Your task to perform on an android device: turn on sleep mode Image 0: 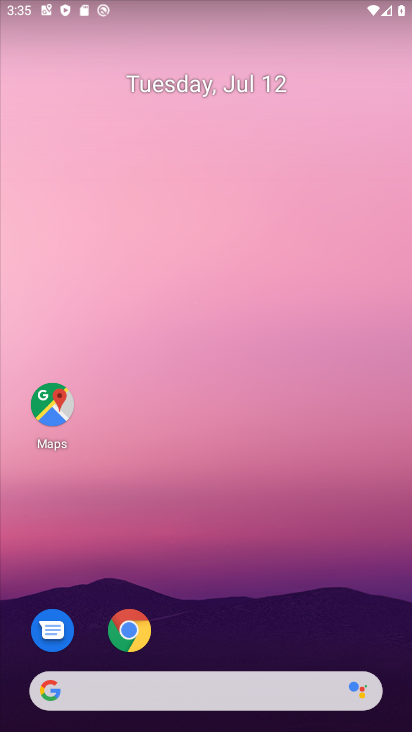
Step 0: drag from (212, 589) to (202, 62)
Your task to perform on an android device: turn on sleep mode Image 1: 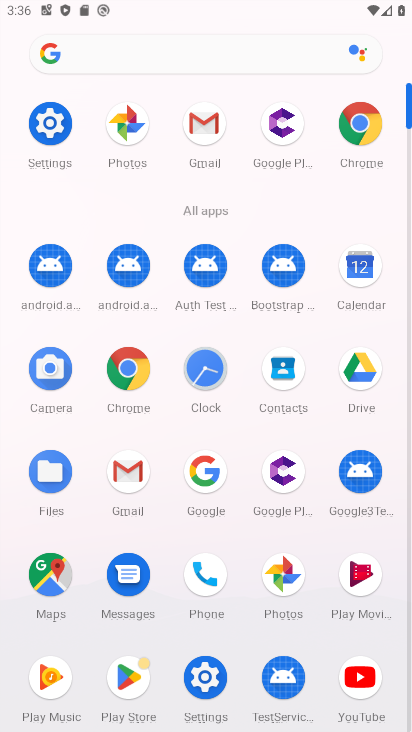
Step 1: click (206, 693)
Your task to perform on an android device: turn on sleep mode Image 2: 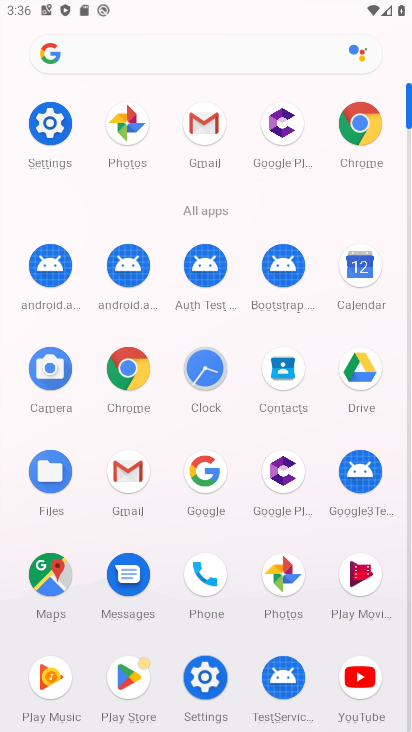
Step 2: click (213, 688)
Your task to perform on an android device: turn on sleep mode Image 3: 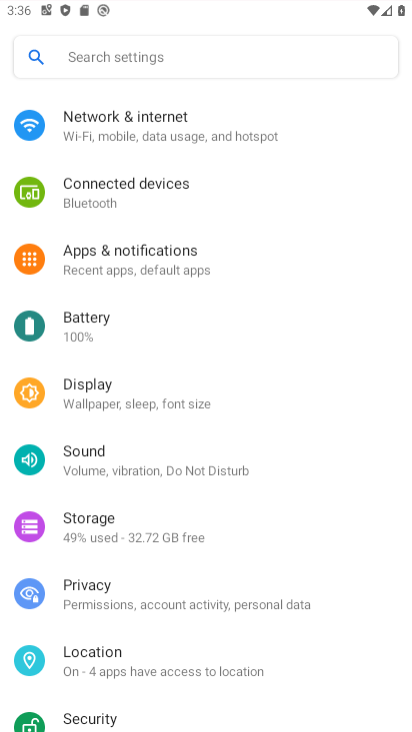
Step 3: click (214, 695)
Your task to perform on an android device: turn on sleep mode Image 4: 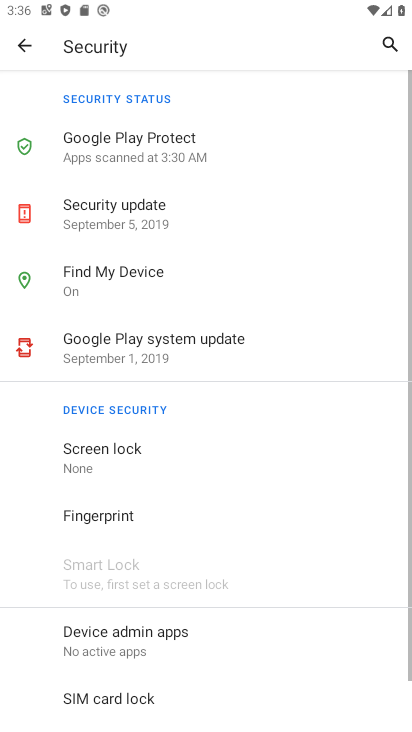
Step 4: click (23, 34)
Your task to perform on an android device: turn on sleep mode Image 5: 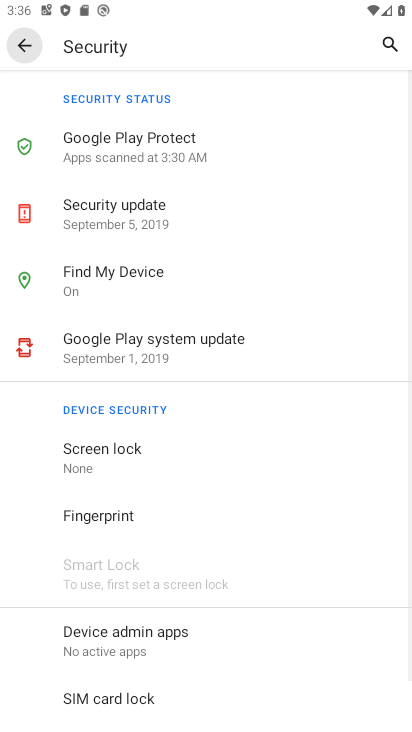
Step 5: click (22, 38)
Your task to perform on an android device: turn on sleep mode Image 6: 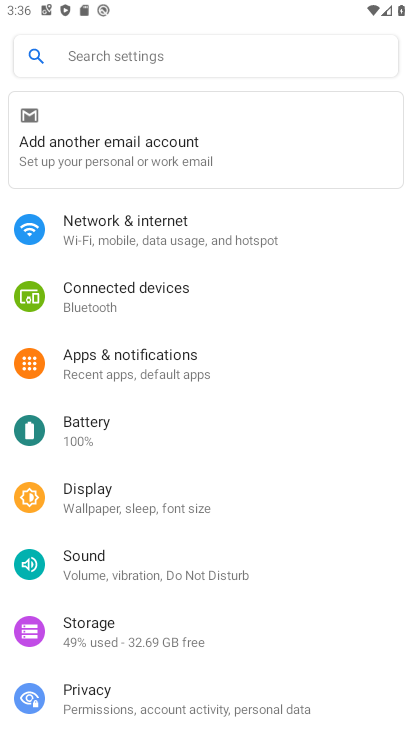
Step 6: click (91, 478)
Your task to perform on an android device: turn on sleep mode Image 7: 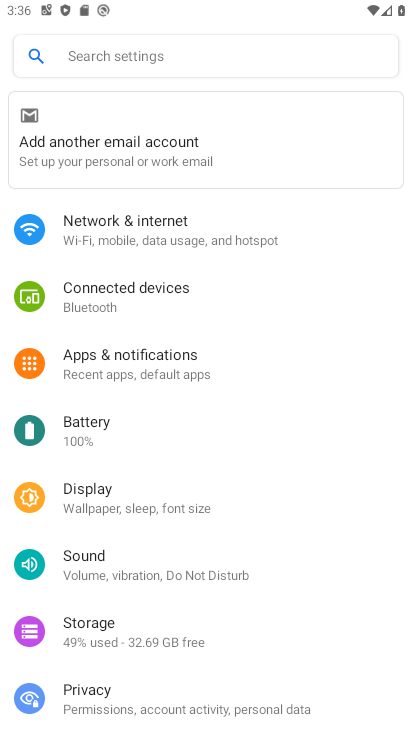
Step 7: click (90, 485)
Your task to perform on an android device: turn on sleep mode Image 8: 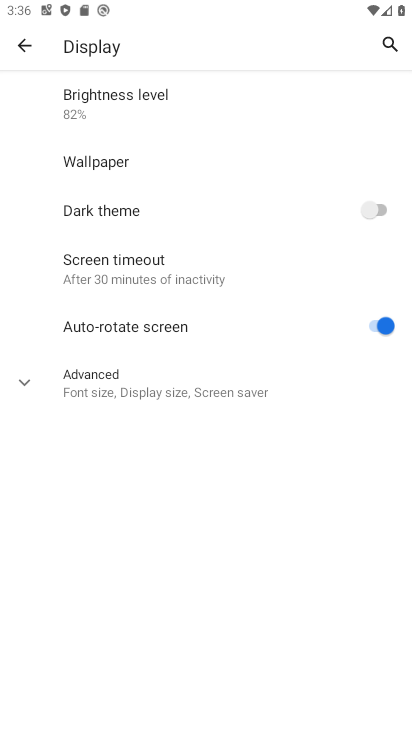
Step 8: click (90, 486)
Your task to perform on an android device: turn on sleep mode Image 9: 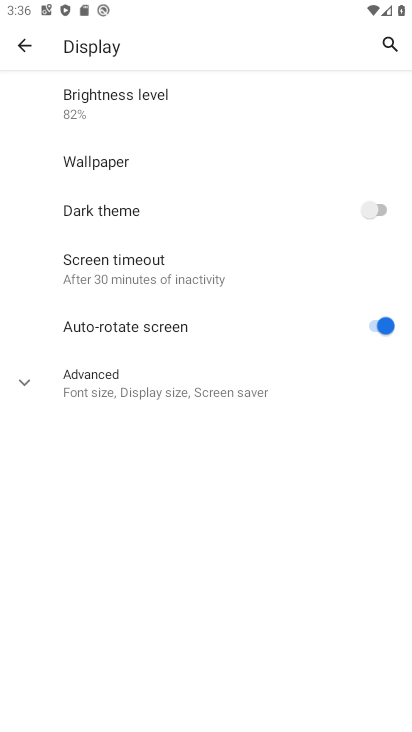
Step 9: click (108, 498)
Your task to perform on an android device: turn on sleep mode Image 10: 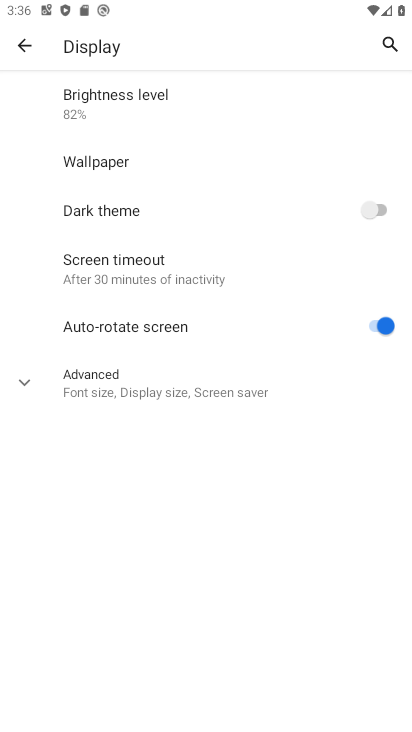
Step 10: click (126, 262)
Your task to perform on an android device: turn on sleep mode Image 11: 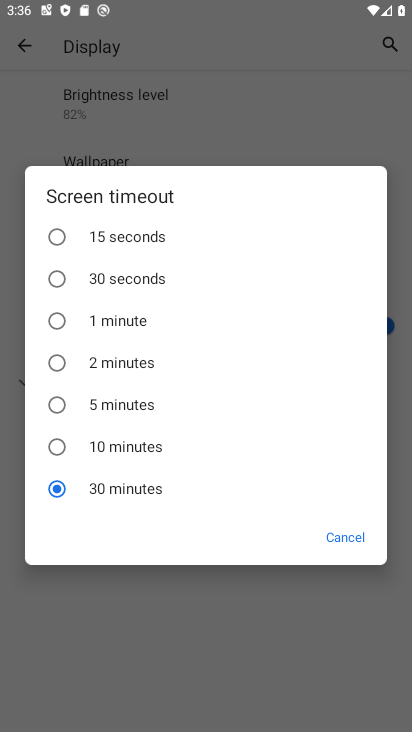
Step 11: task complete